Your task to perform on an android device: move an email to a new category in the gmail app Image 0: 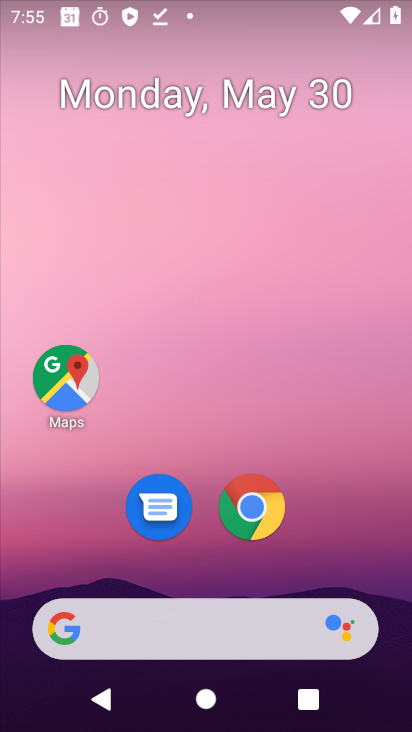
Step 0: drag from (353, 556) to (318, 121)
Your task to perform on an android device: move an email to a new category in the gmail app Image 1: 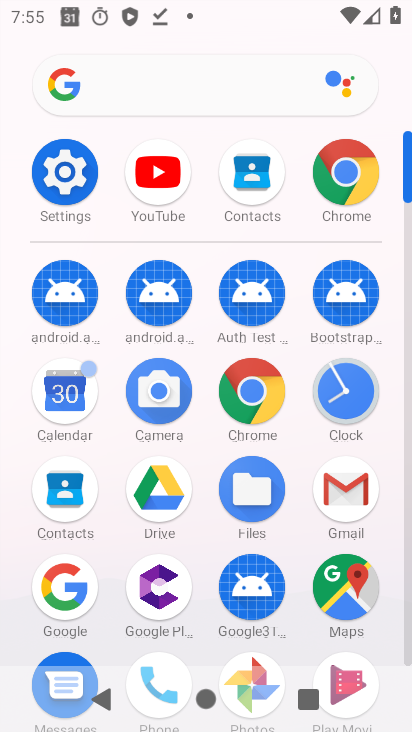
Step 1: click (383, 512)
Your task to perform on an android device: move an email to a new category in the gmail app Image 2: 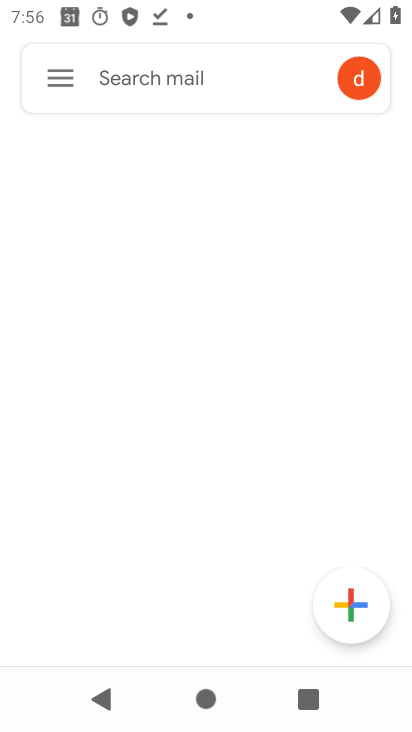
Step 2: click (45, 80)
Your task to perform on an android device: move an email to a new category in the gmail app Image 3: 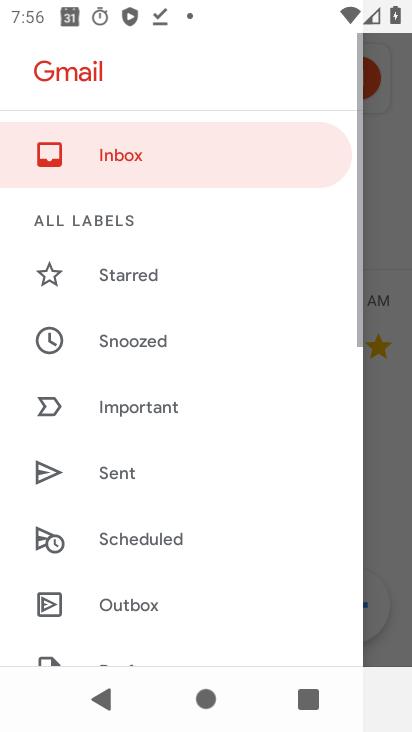
Step 3: drag from (179, 599) to (176, 249)
Your task to perform on an android device: move an email to a new category in the gmail app Image 4: 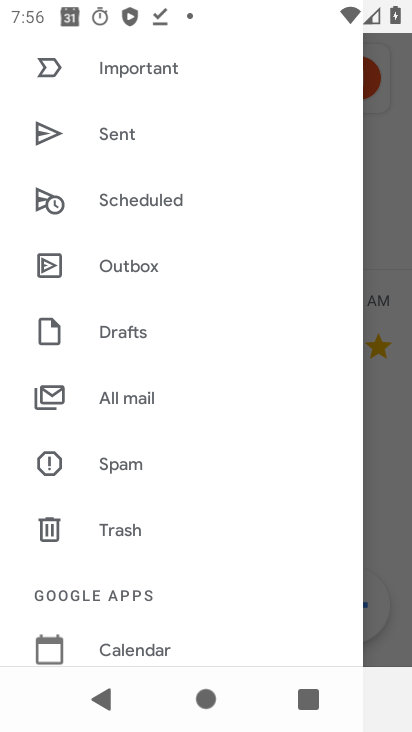
Step 4: click (167, 390)
Your task to perform on an android device: move an email to a new category in the gmail app Image 5: 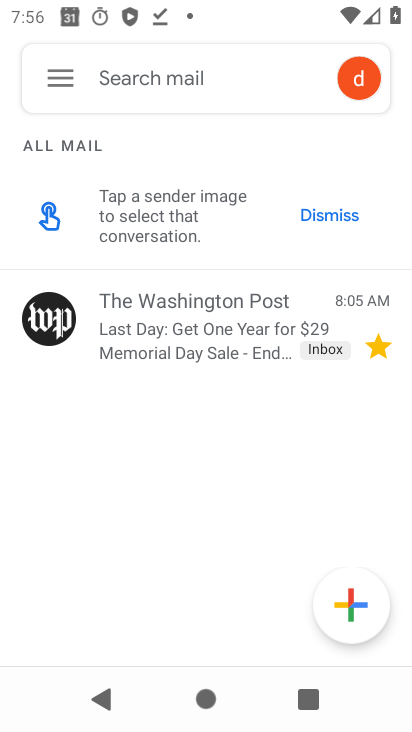
Step 5: click (278, 316)
Your task to perform on an android device: move an email to a new category in the gmail app Image 6: 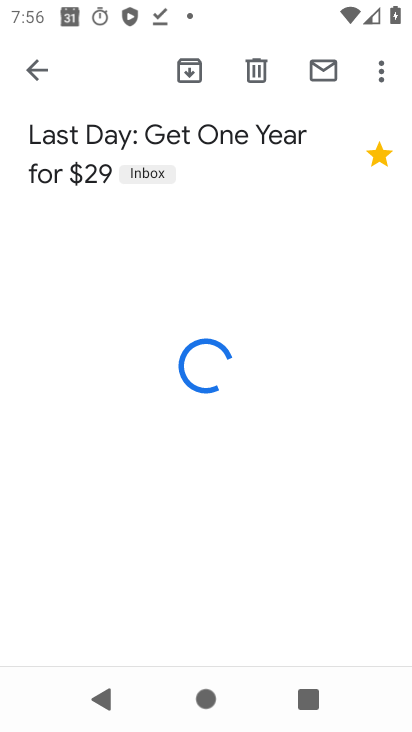
Step 6: click (385, 83)
Your task to perform on an android device: move an email to a new category in the gmail app Image 7: 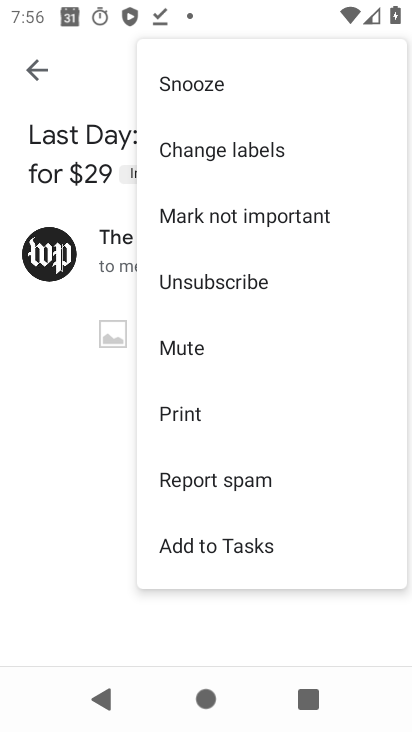
Step 7: task complete